Your task to perform on an android device: clear all cookies in the chrome app Image 0: 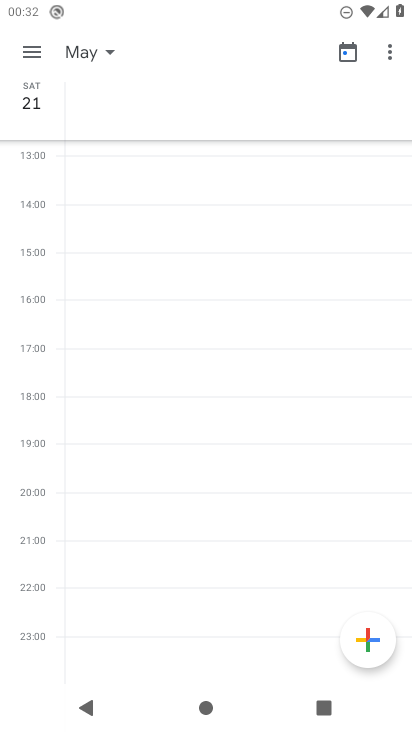
Step 0: press home button
Your task to perform on an android device: clear all cookies in the chrome app Image 1: 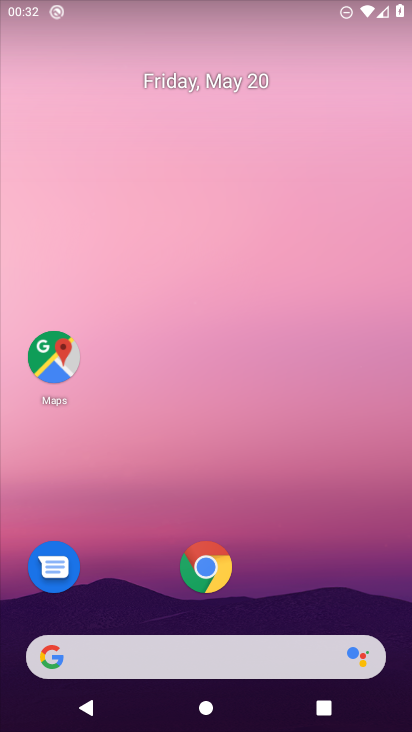
Step 1: click (203, 563)
Your task to perform on an android device: clear all cookies in the chrome app Image 2: 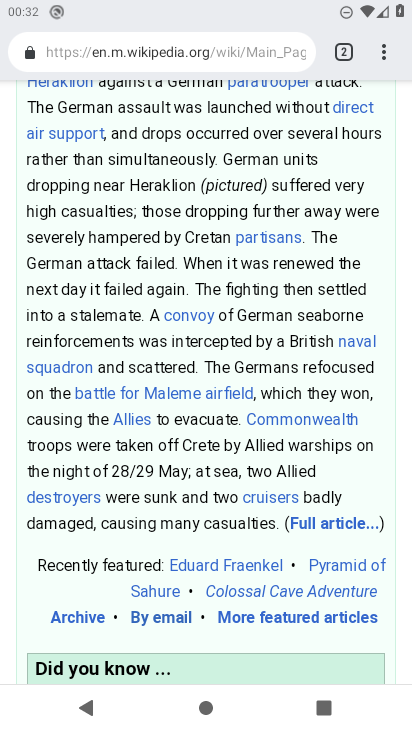
Step 2: click (385, 45)
Your task to perform on an android device: clear all cookies in the chrome app Image 3: 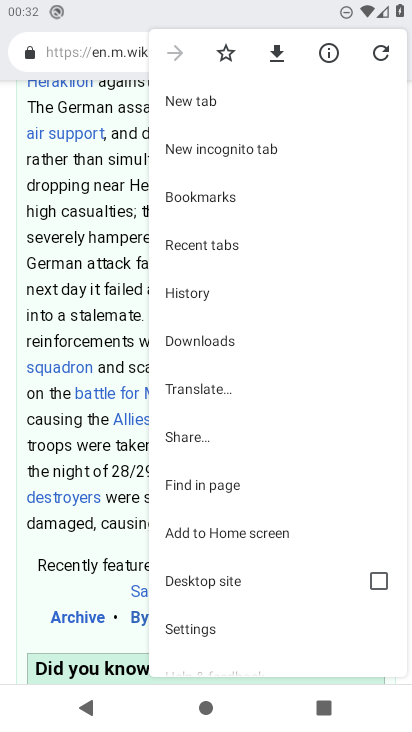
Step 3: click (228, 285)
Your task to perform on an android device: clear all cookies in the chrome app Image 4: 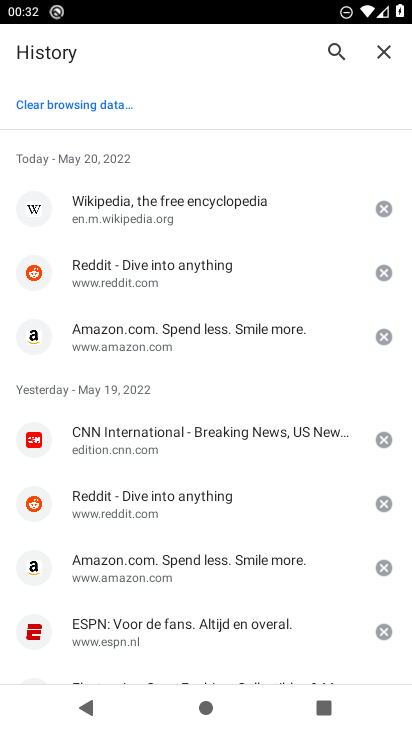
Step 4: click (81, 105)
Your task to perform on an android device: clear all cookies in the chrome app Image 5: 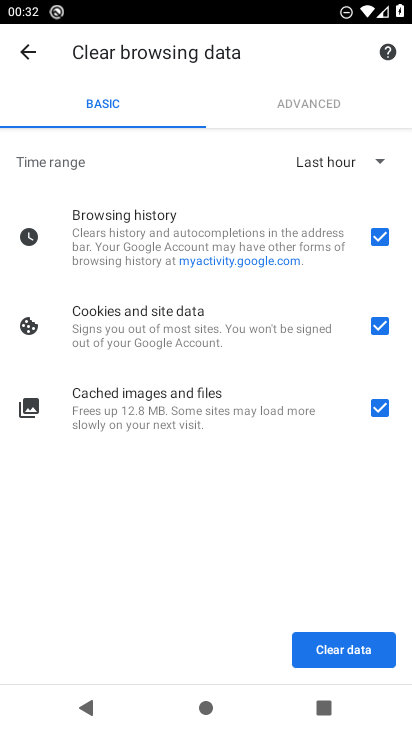
Step 5: click (386, 242)
Your task to perform on an android device: clear all cookies in the chrome app Image 6: 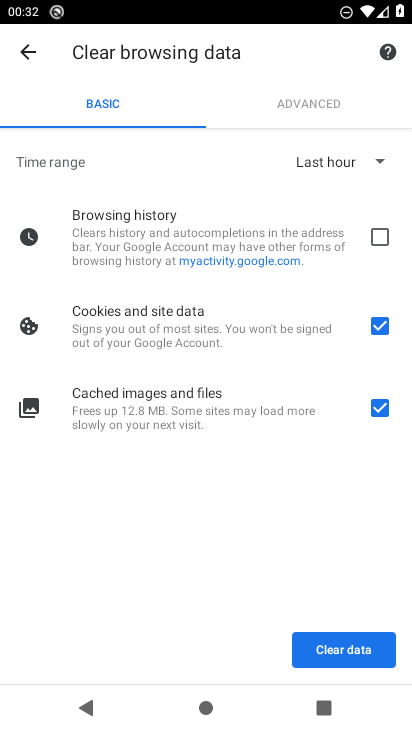
Step 6: click (377, 403)
Your task to perform on an android device: clear all cookies in the chrome app Image 7: 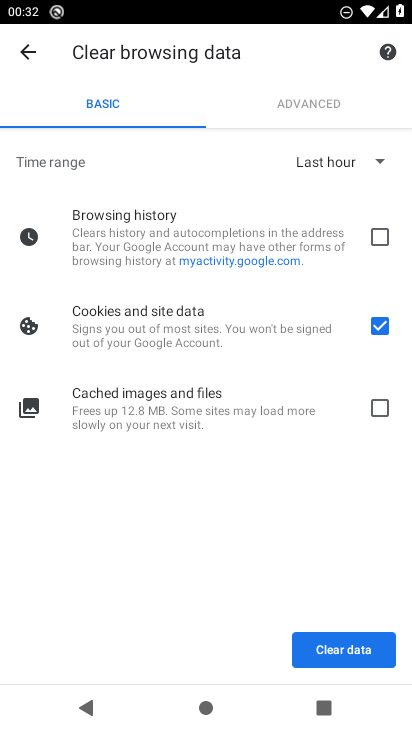
Step 7: click (348, 649)
Your task to perform on an android device: clear all cookies in the chrome app Image 8: 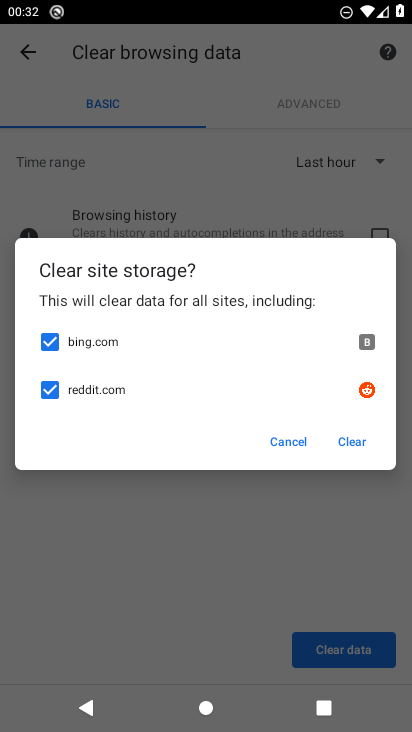
Step 8: click (343, 443)
Your task to perform on an android device: clear all cookies in the chrome app Image 9: 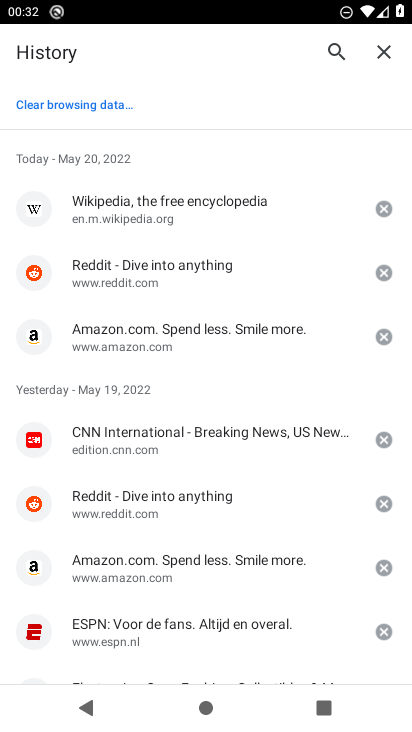
Step 9: task complete